Your task to perform on an android device: turn off notifications in google photos Image 0: 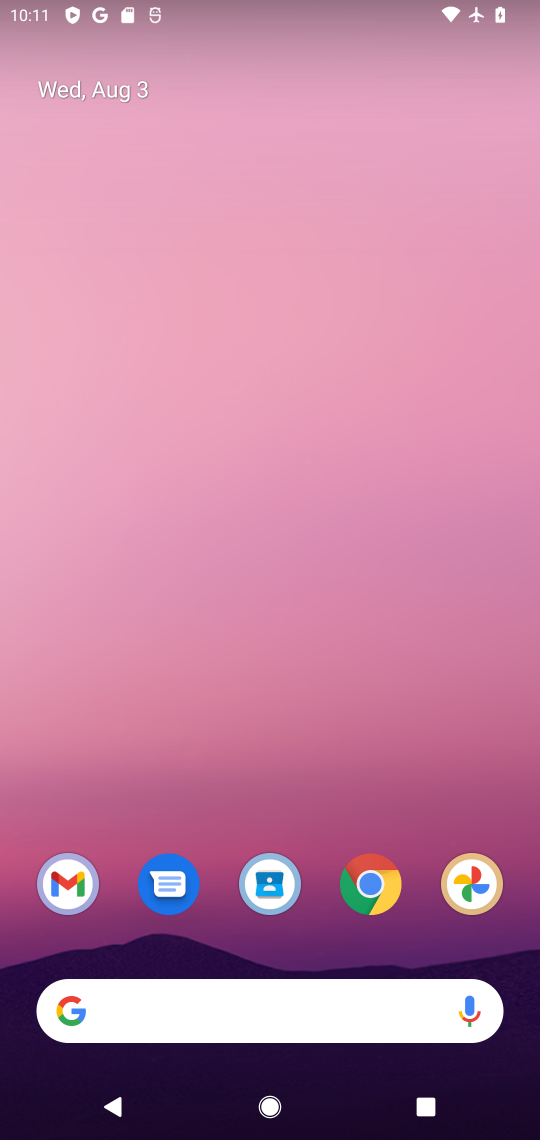
Step 0: press home button
Your task to perform on an android device: turn off notifications in google photos Image 1: 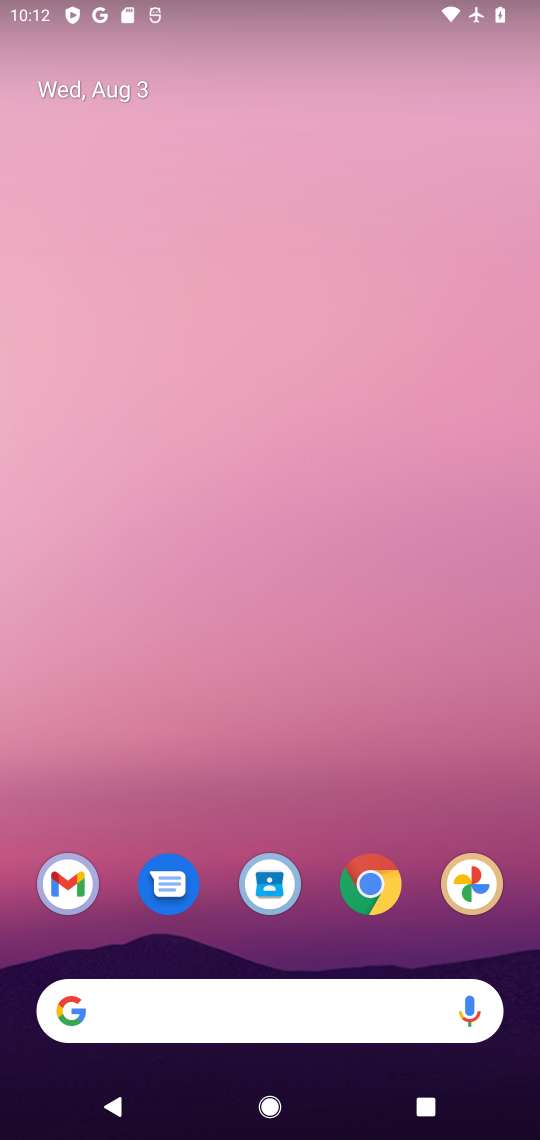
Step 1: drag from (218, 883) to (150, 204)
Your task to perform on an android device: turn off notifications in google photos Image 2: 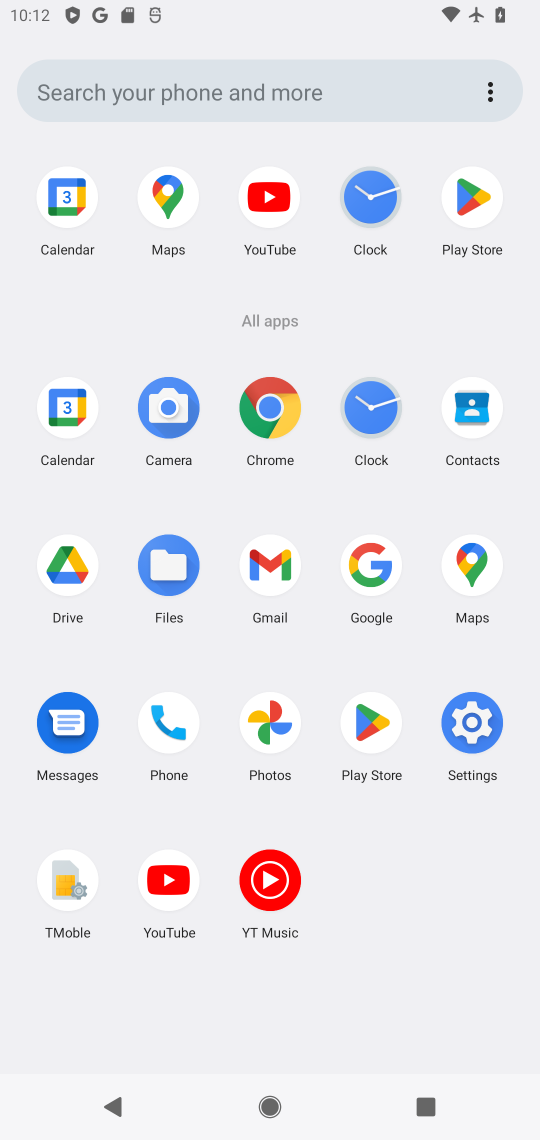
Step 2: click (269, 737)
Your task to perform on an android device: turn off notifications in google photos Image 3: 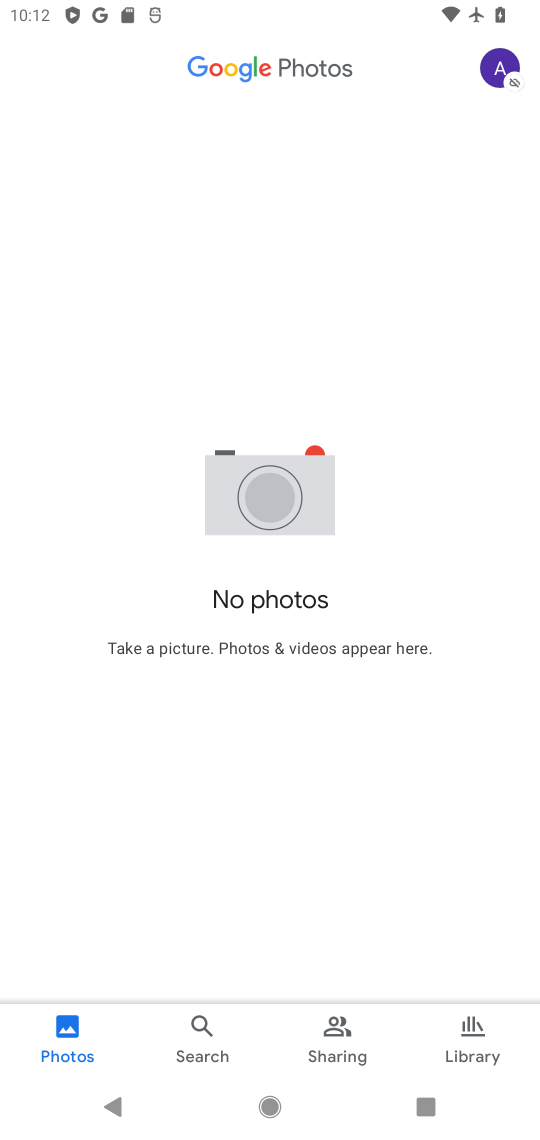
Step 3: click (492, 85)
Your task to perform on an android device: turn off notifications in google photos Image 4: 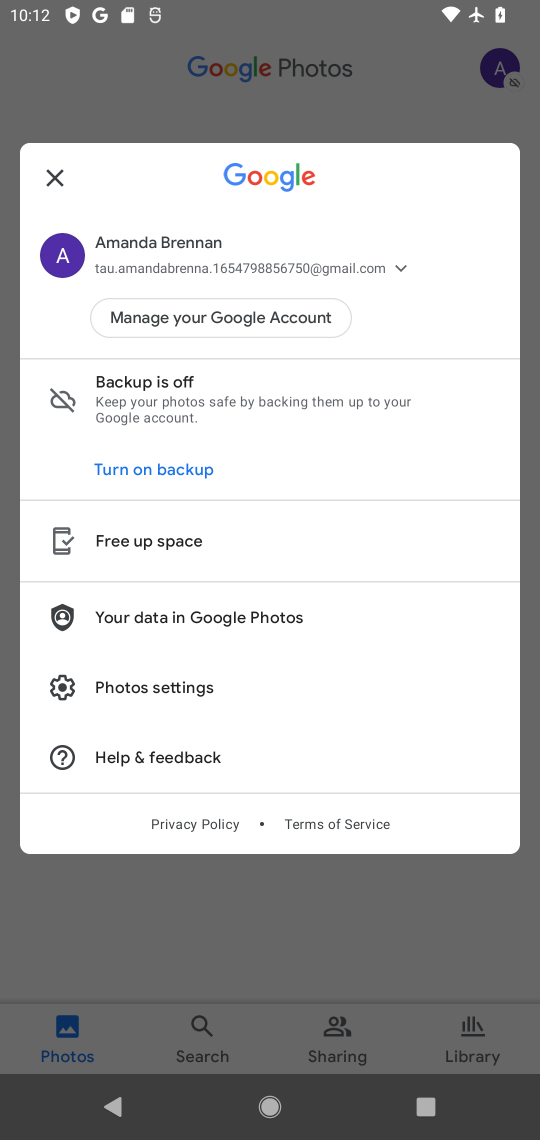
Step 4: click (143, 697)
Your task to perform on an android device: turn off notifications in google photos Image 5: 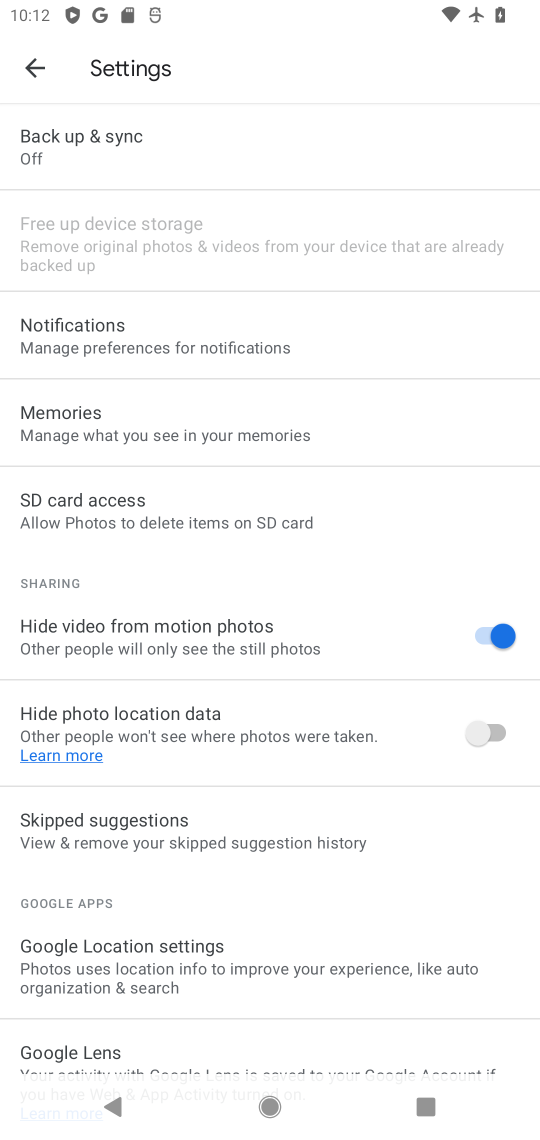
Step 5: click (74, 348)
Your task to perform on an android device: turn off notifications in google photos Image 6: 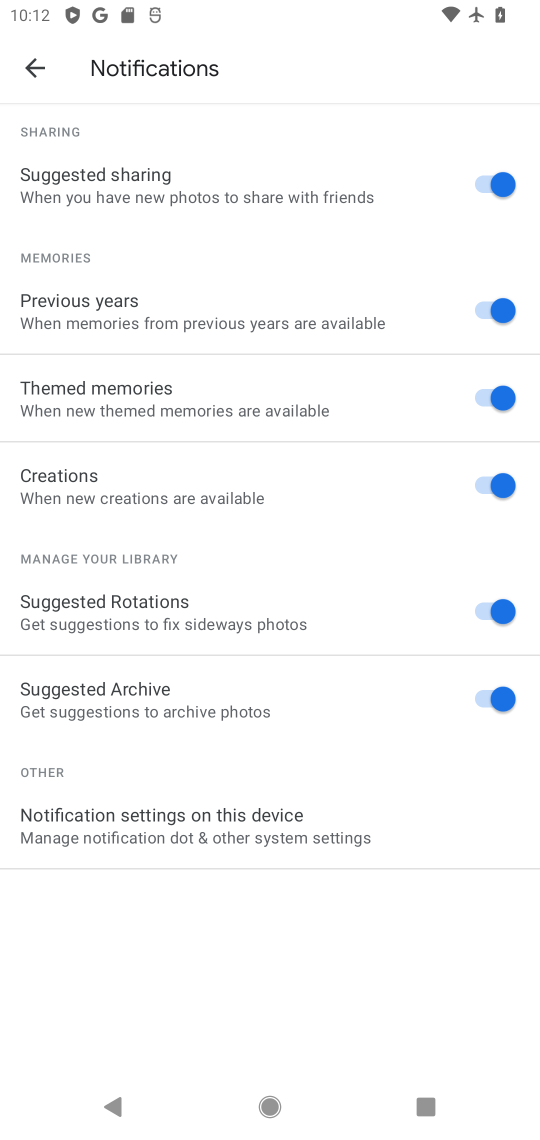
Step 6: click (512, 188)
Your task to perform on an android device: turn off notifications in google photos Image 7: 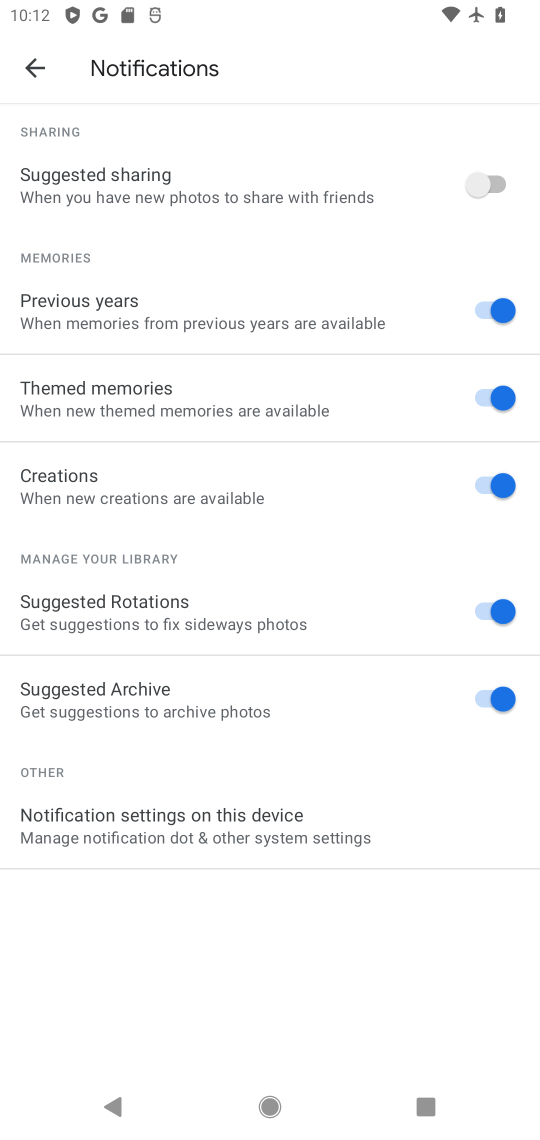
Step 7: task complete